Your task to perform on an android device: Open Android settings Image 0: 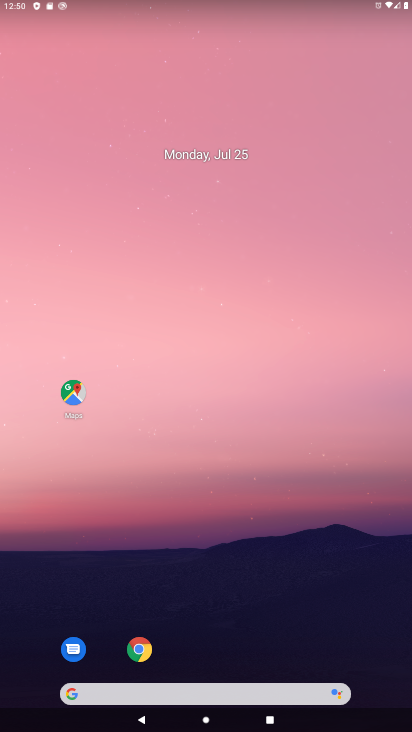
Step 0: press home button
Your task to perform on an android device: Open Android settings Image 1: 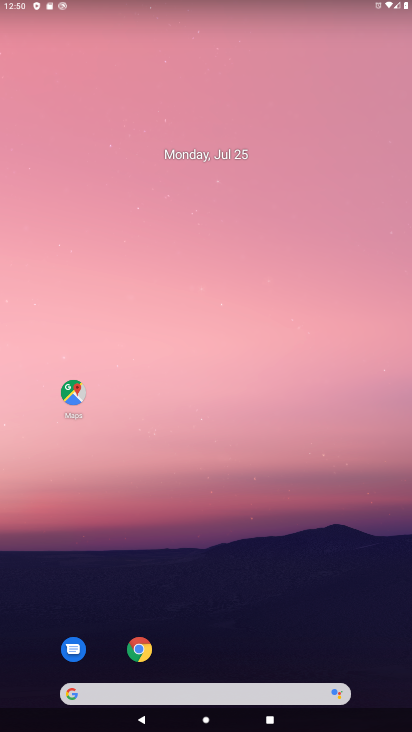
Step 1: drag from (275, 394) to (261, 147)
Your task to perform on an android device: Open Android settings Image 2: 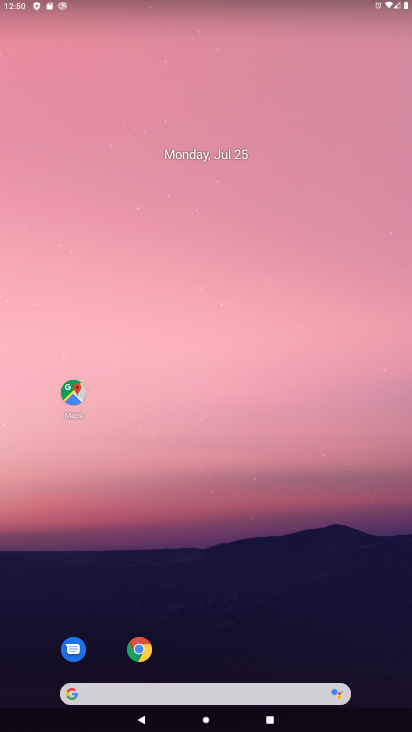
Step 2: drag from (260, 594) to (283, 136)
Your task to perform on an android device: Open Android settings Image 3: 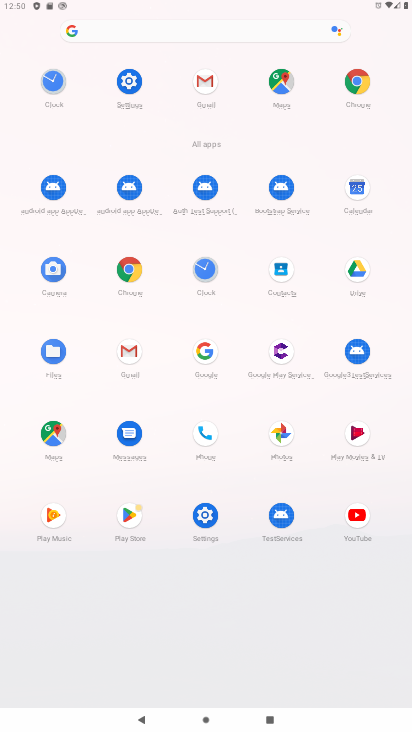
Step 3: click (123, 73)
Your task to perform on an android device: Open Android settings Image 4: 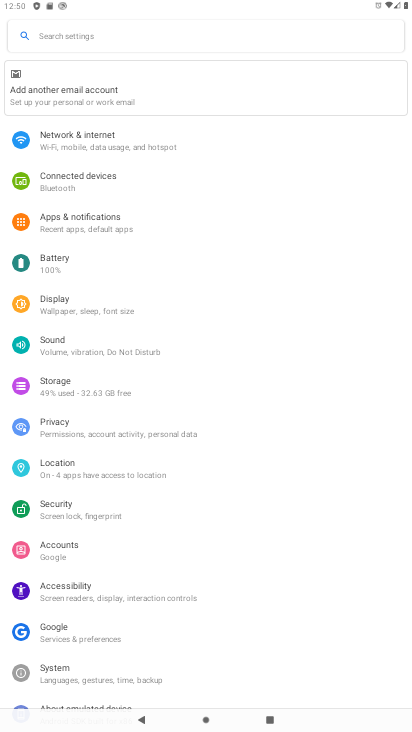
Step 4: task complete